Your task to perform on an android device: turn on priority inbox in the gmail app Image 0: 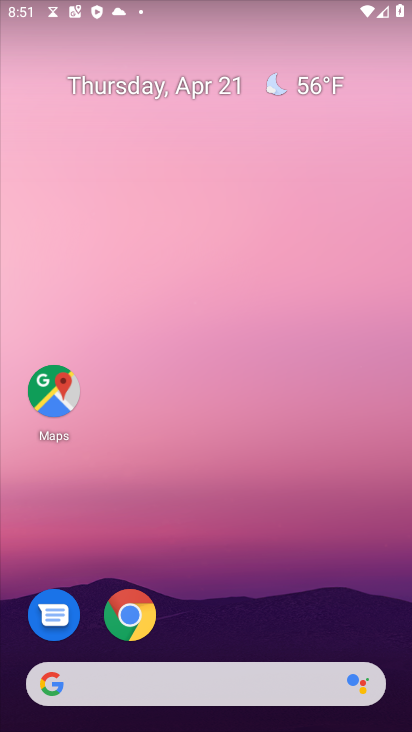
Step 0: drag from (277, 570) to (270, 160)
Your task to perform on an android device: turn on priority inbox in the gmail app Image 1: 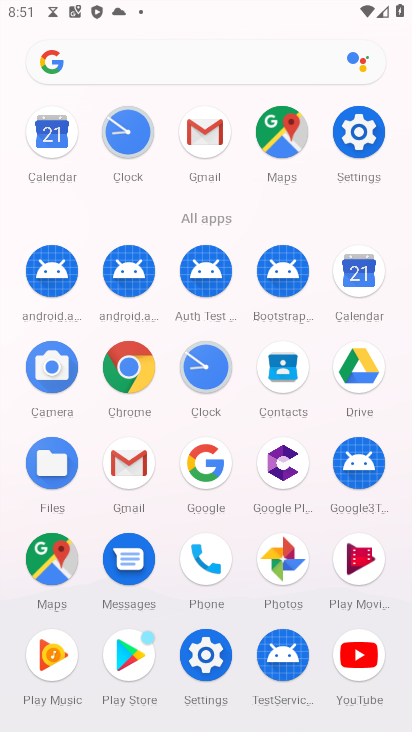
Step 1: click (138, 470)
Your task to perform on an android device: turn on priority inbox in the gmail app Image 2: 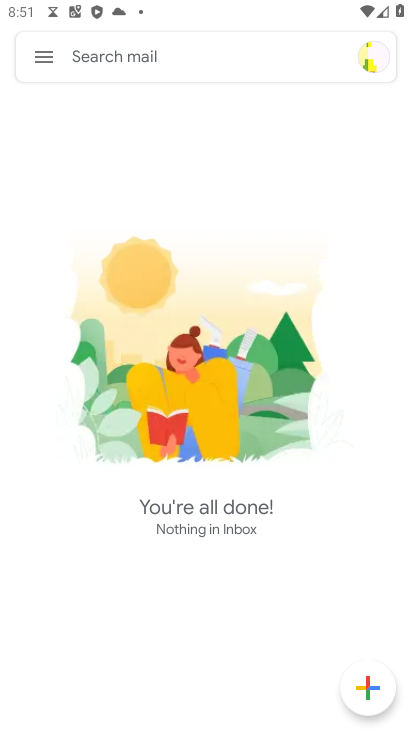
Step 2: click (45, 55)
Your task to perform on an android device: turn on priority inbox in the gmail app Image 3: 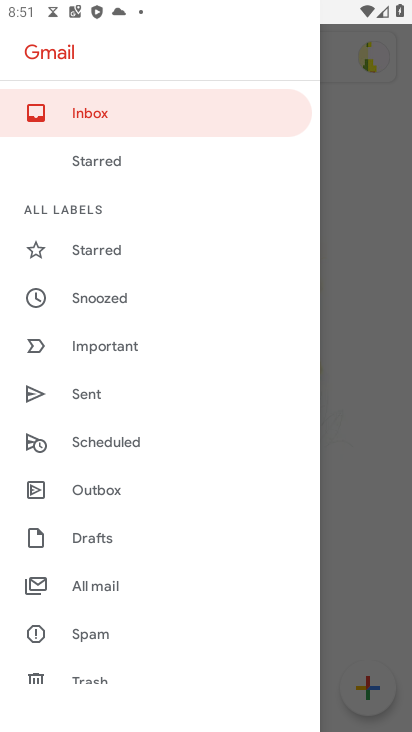
Step 3: drag from (144, 629) to (220, 196)
Your task to perform on an android device: turn on priority inbox in the gmail app Image 4: 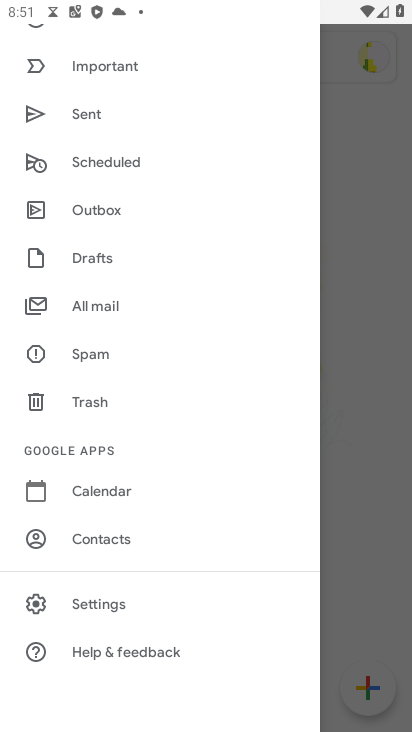
Step 4: click (109, 609)
Your task to perform on an android device: turn on priority inbox in the gmail app Image 5: 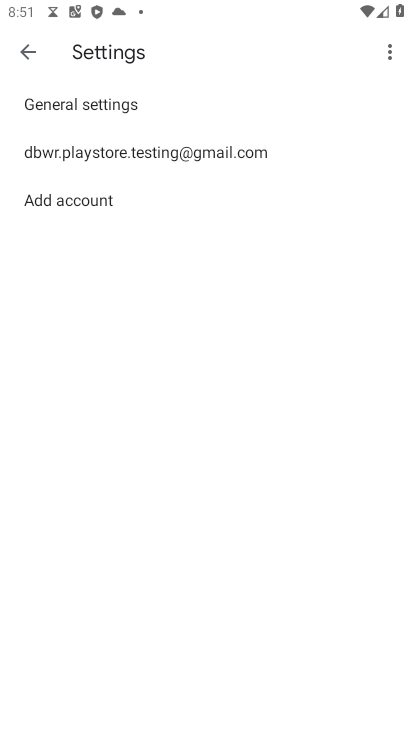
Step 5: click (142, 154)
Your task to perform on an android device: turn on priority inbox in the gmail app Image 6: 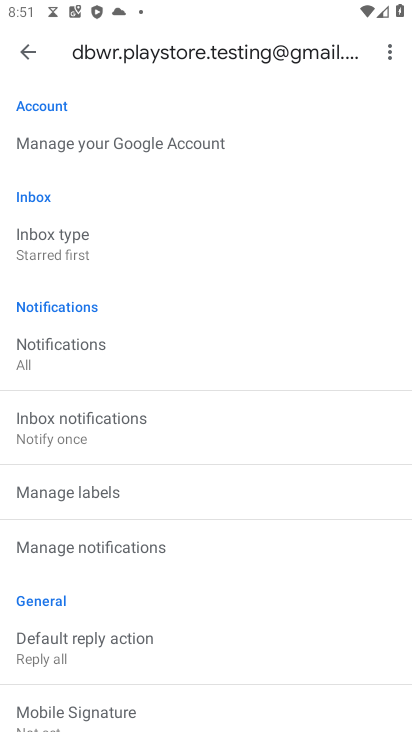
Step 6: click (54, 245)
Your task to perform on an android device: turn on priority inbox in the gmail app Image 7: 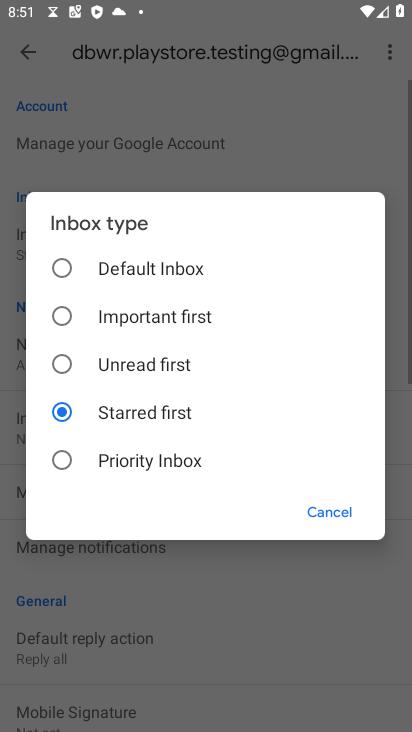
Step 7: click (78, 463)
Your task to perform on an android device: turn on priority inbox in the gmail app Image 8: 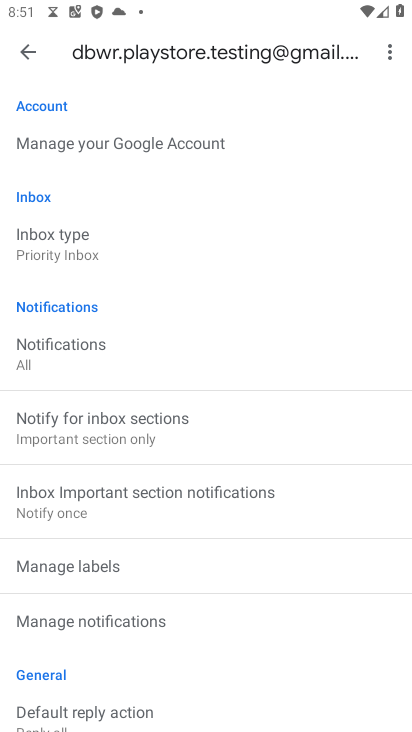
Step 8: task complete